Your task to perform on an android device: change the clock display to show seconds Image 0: 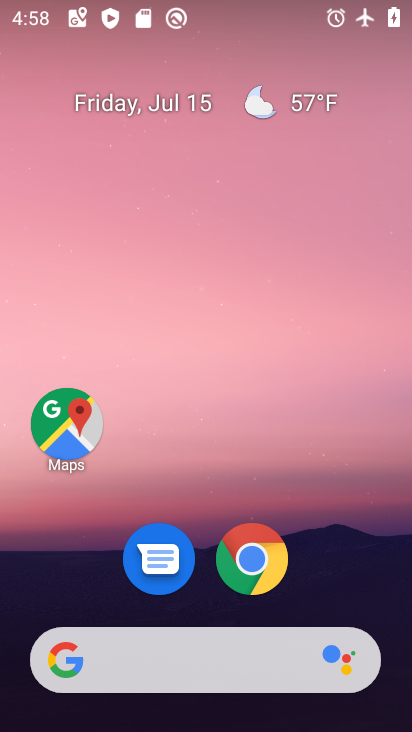
Step 0: drag from (123, 463) to (223, 11)
Your task to perform on an android device: change the clock display to show seconds Image 1: 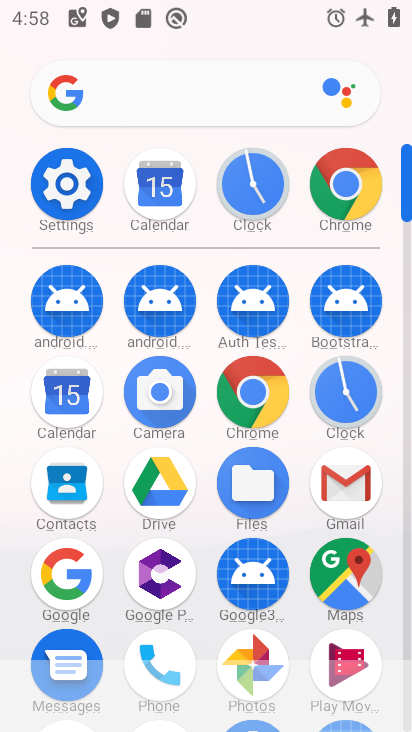
Step 1: click (244, 174)
Your task to perform on an android device: change the clock display to show seconds Image 2: 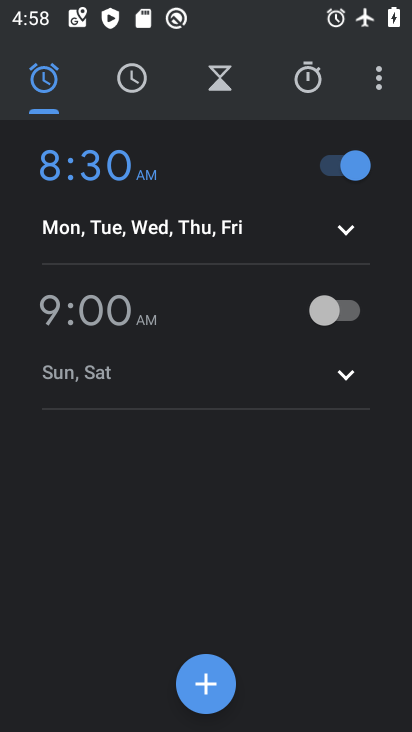
Step 2: click (374, 80)
Your task to perform on an android device: change the clock display to show seconds Image 3: 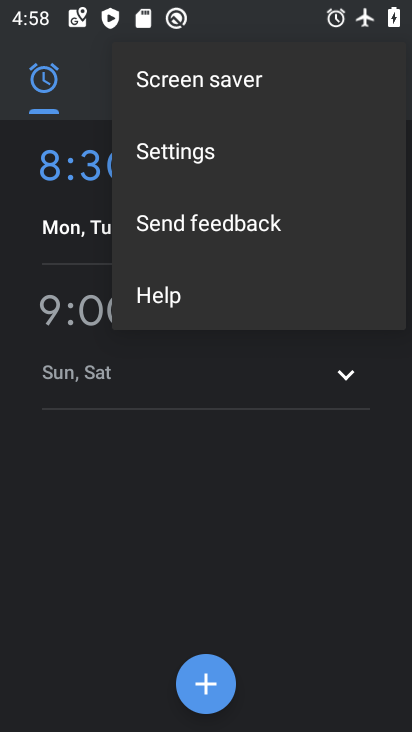
Step 3: click (211, 158)
Your task to perform on an android device: change the clock display to show seconds Image 4: 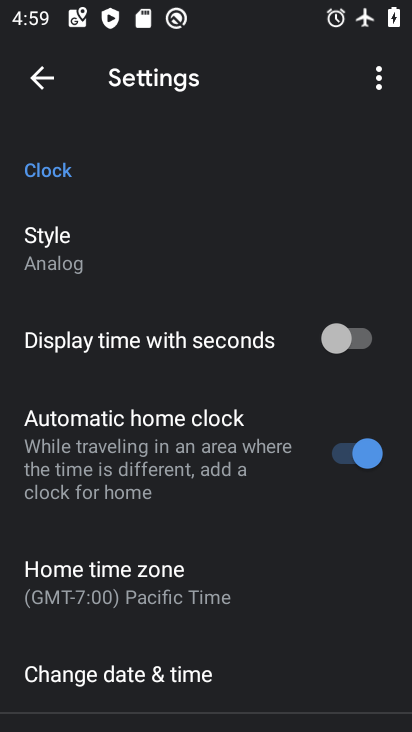
Step 4: click (60, 251)
Your task to perform on an android device: change the clock display to show seconds Image 5: 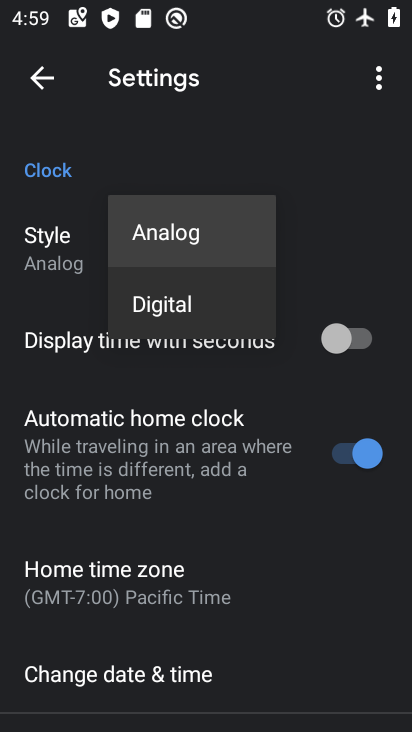
Step 5: click (159, 313)
Your task to perform on an android device: change the clock display to show seconds Image 6: 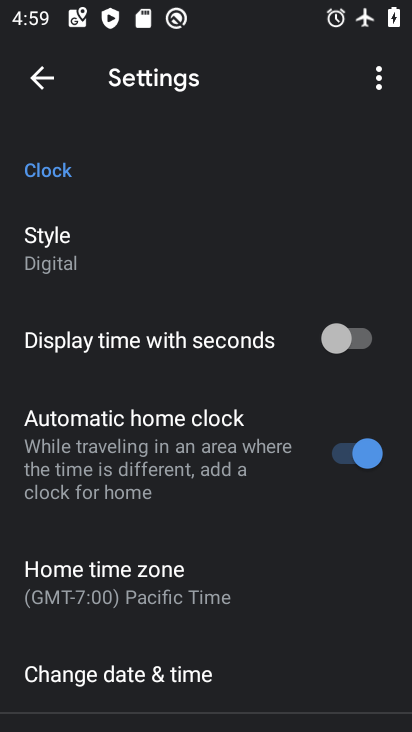
Step 6: click (350, 340)
Your task to perform on an android device: change the clock display to show seconds Image 7: 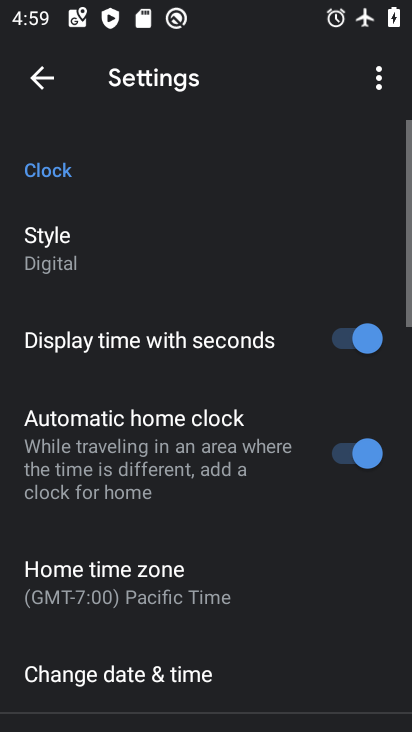
Step 7: task complete